Your task to perform on an android device: open app "Skype" Image 0: 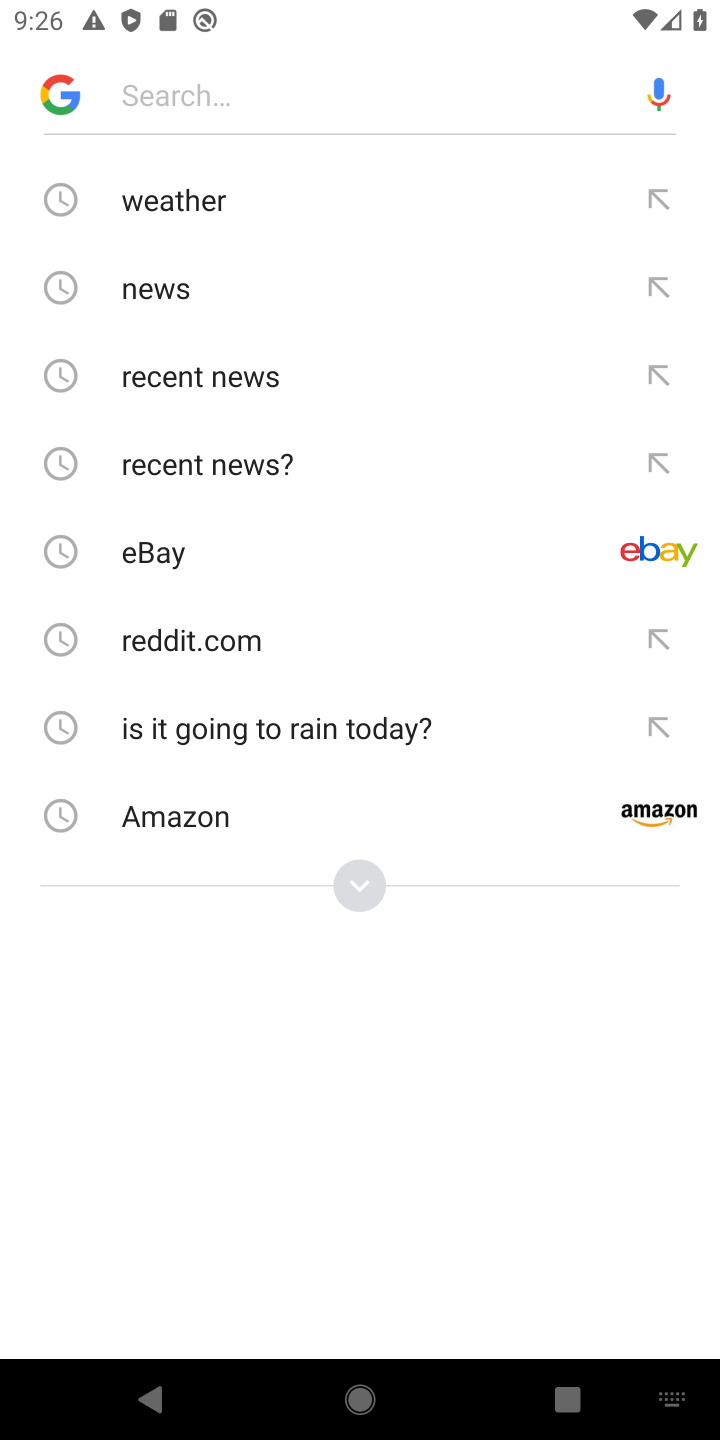
Step 0: press back button
Your task to perform on an android device: open app "Skype" Image 1: 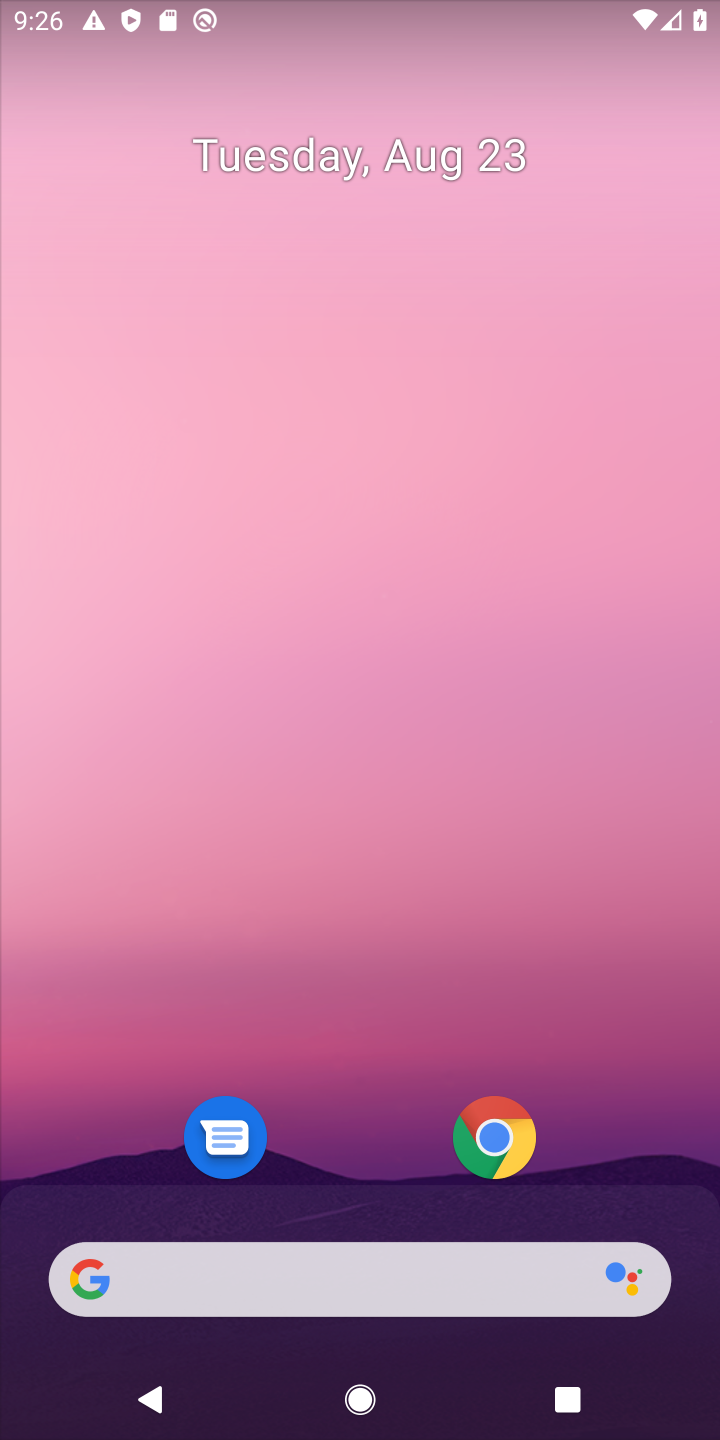
Step 1: click (311, 21)
Your task to perform on an android device: open app "Skype" Image 2: 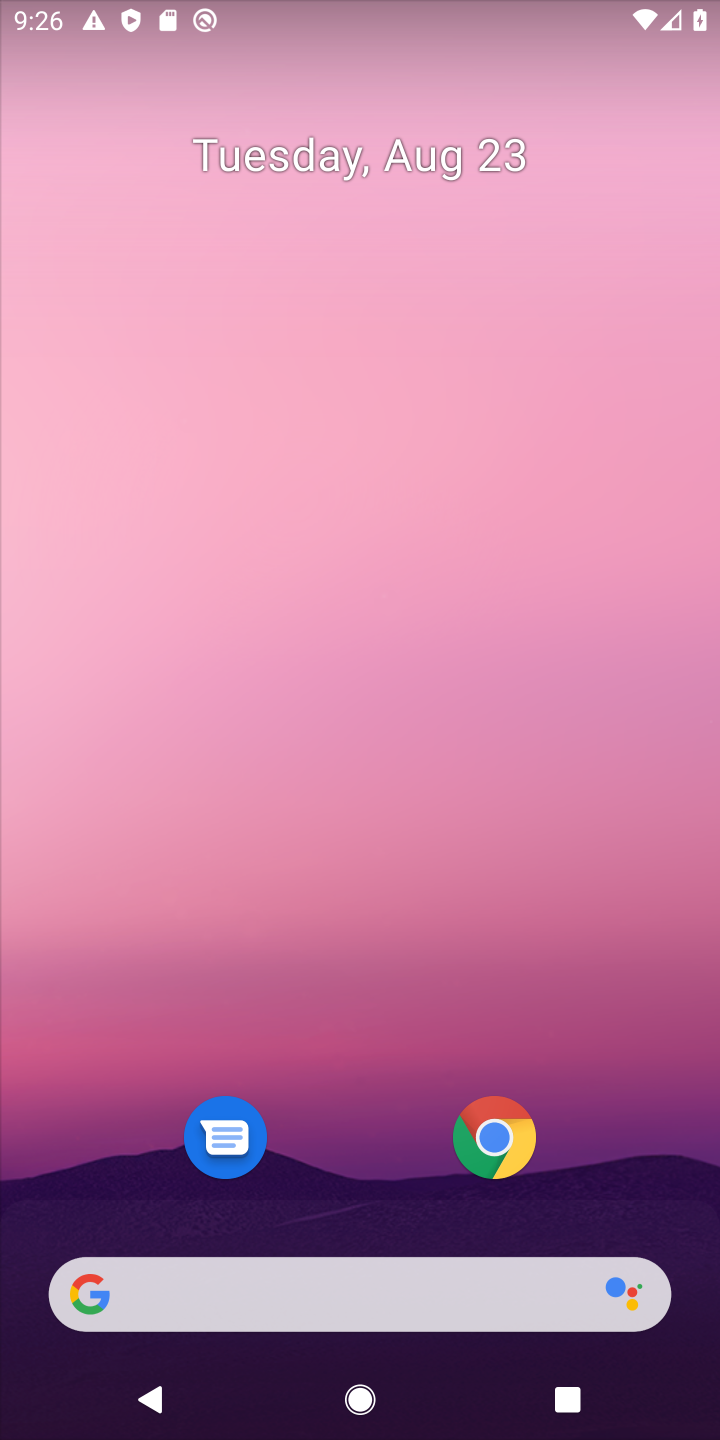
Step 2: drag from (433, 1230) to (314, 290)
Your task to perform on an android device: open app "Skype" Image 3: 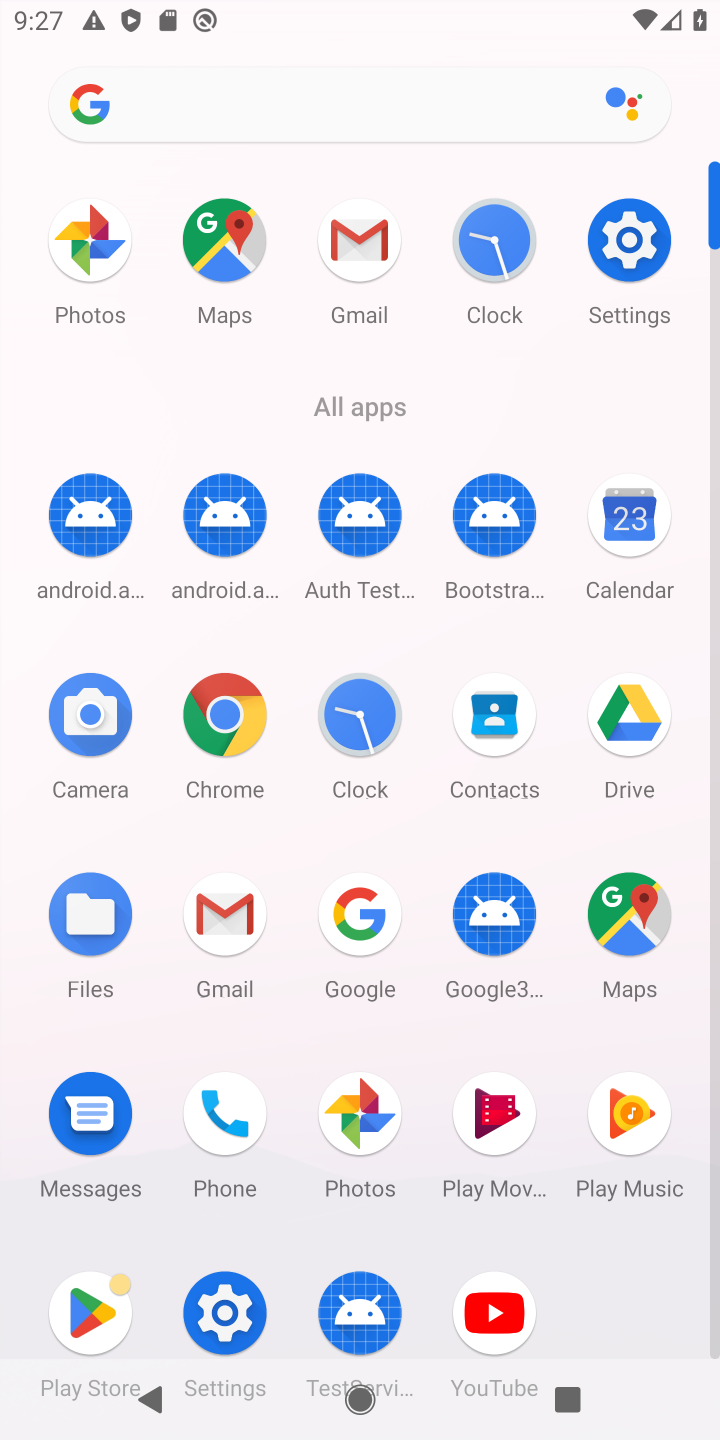
Step 3: click (98, 1287)
Your task to perform on an android device: open app "Skype" Image 4: 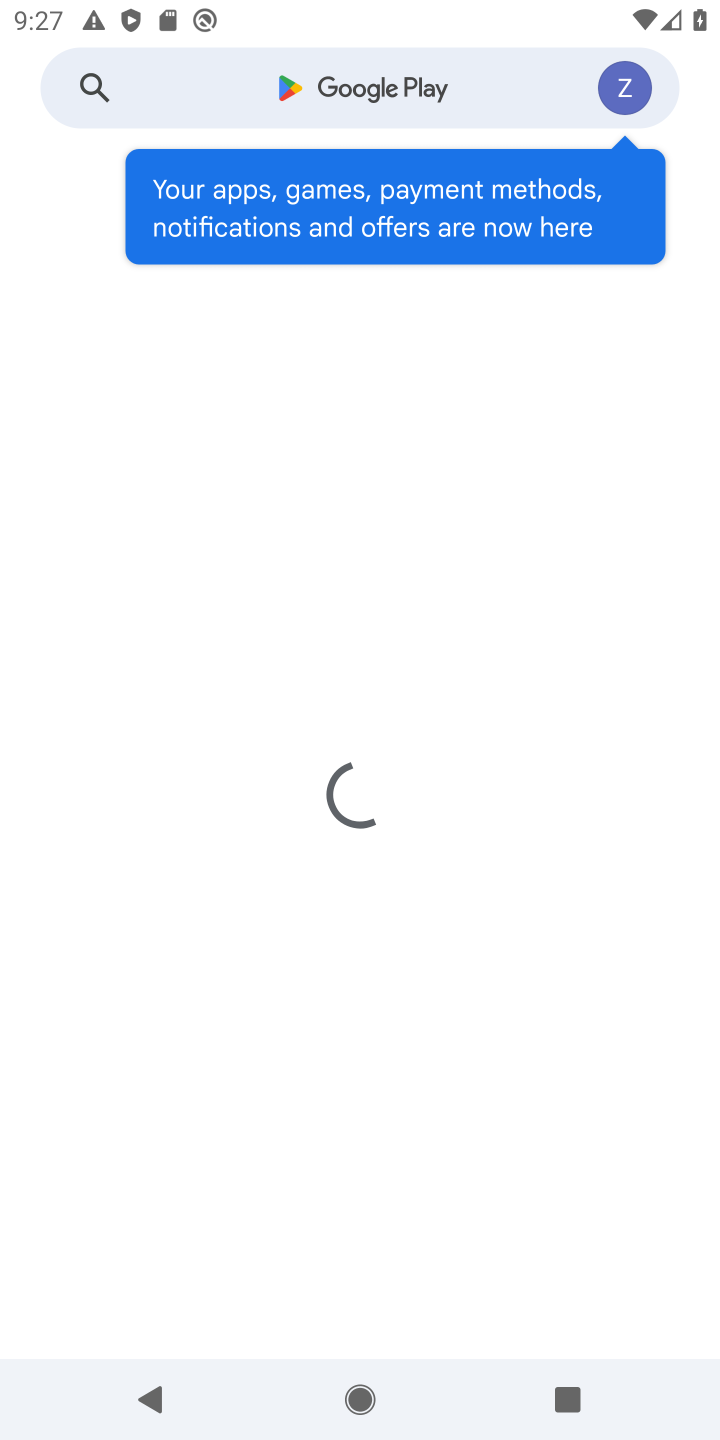
Step 4: click (271, 86)
Your task to perform on an android device: open app "Skype" Image 5: 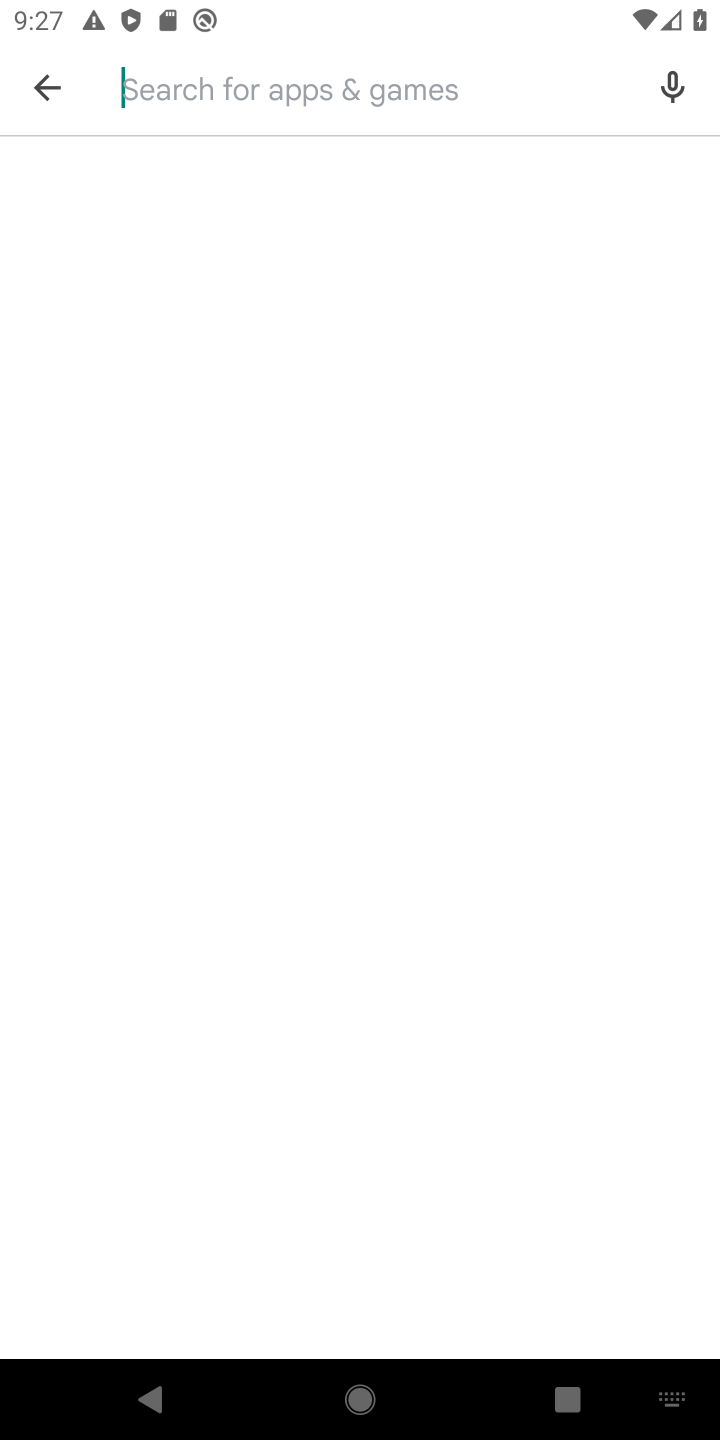
Step 5: type "Skype"
Your task to perform on an android device: open app "Skype" Image 6: 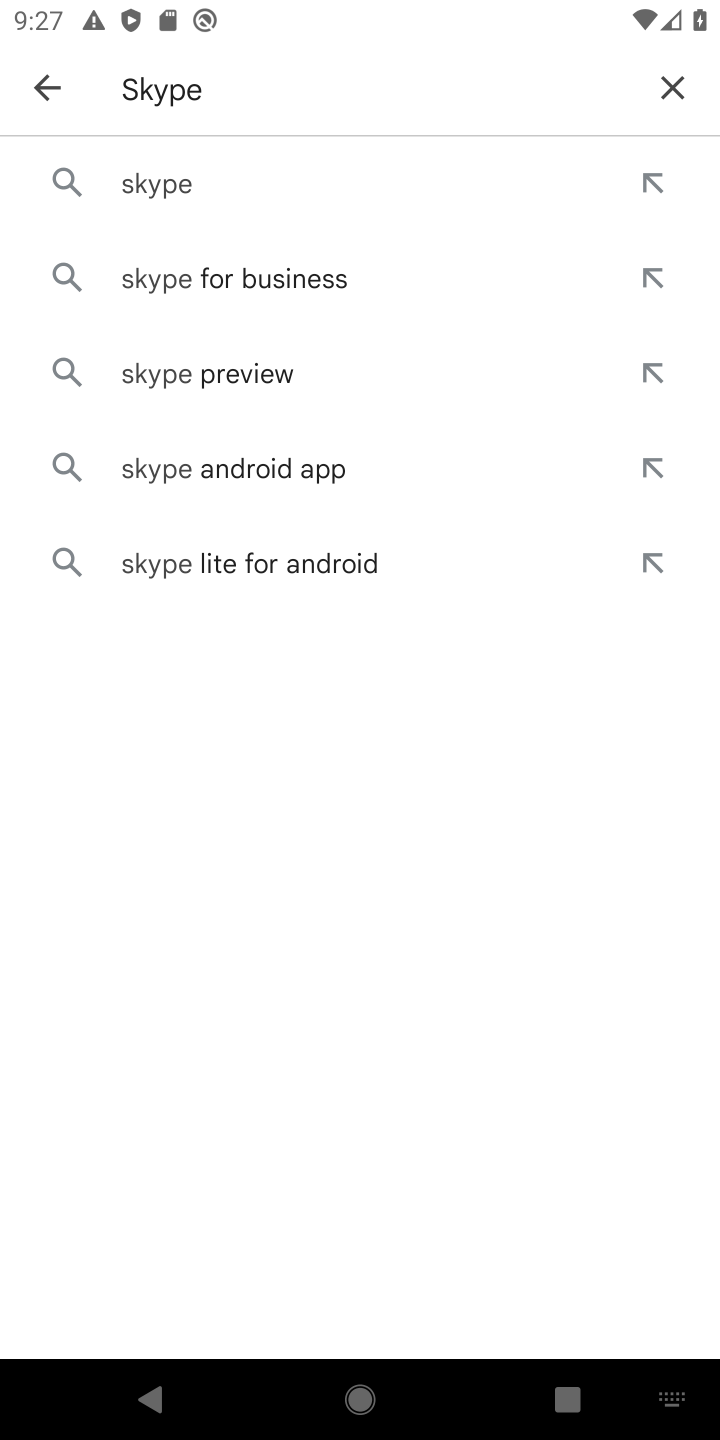
Step 6: click (274, 200)
Your task to perform on an android device: open app "Skype" Image 7: 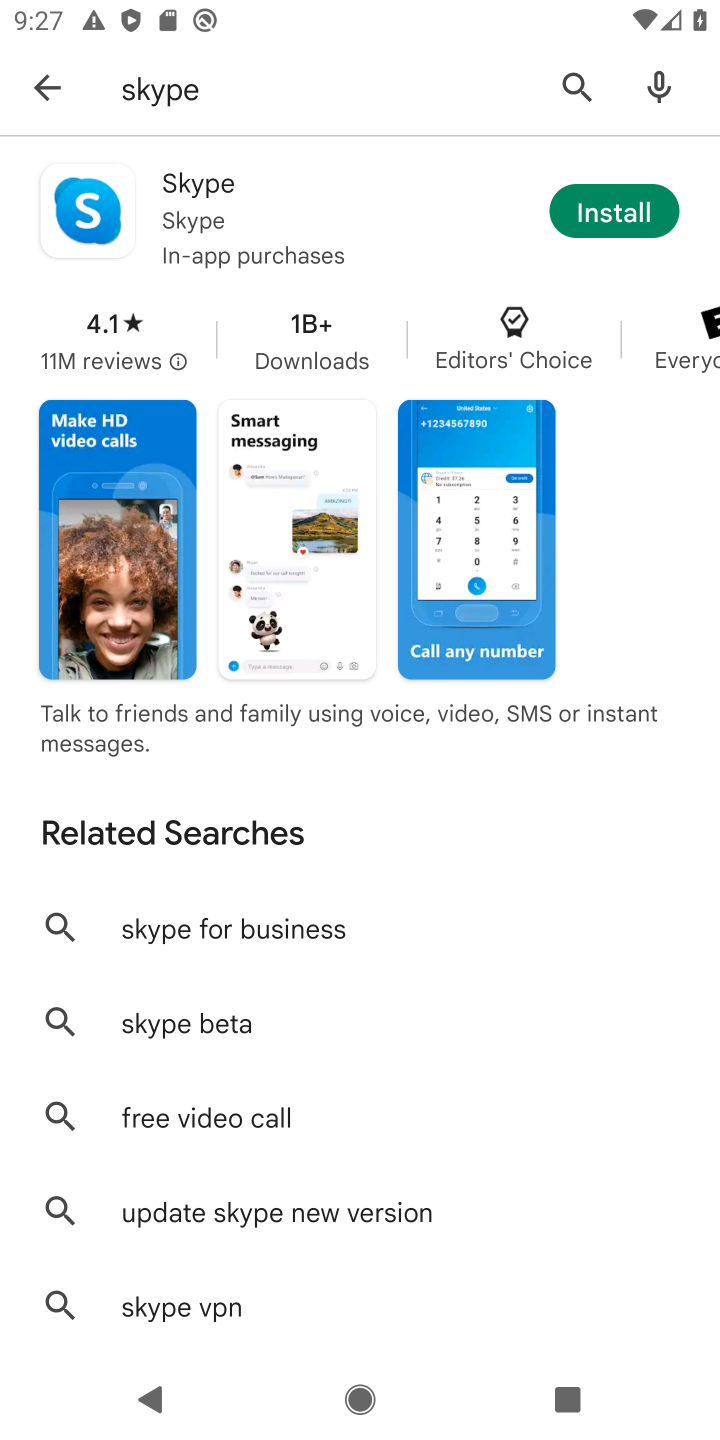
Step 7: task complete